Your task to perform on an android device: What's the weather today? Image 0: 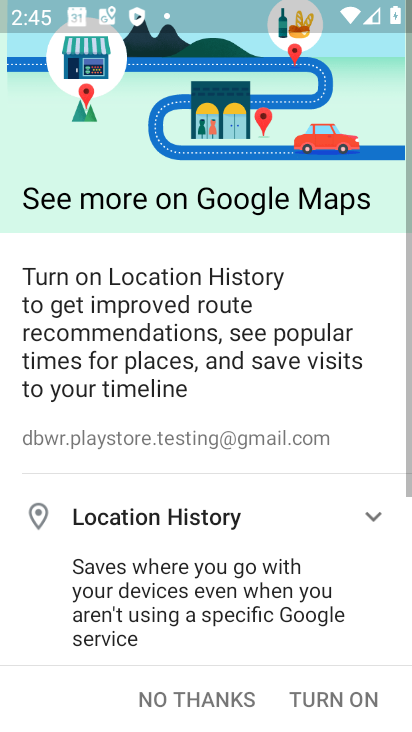
Step 0: press home button
Your task to perform on an android device: What's the weather today? Image 1: 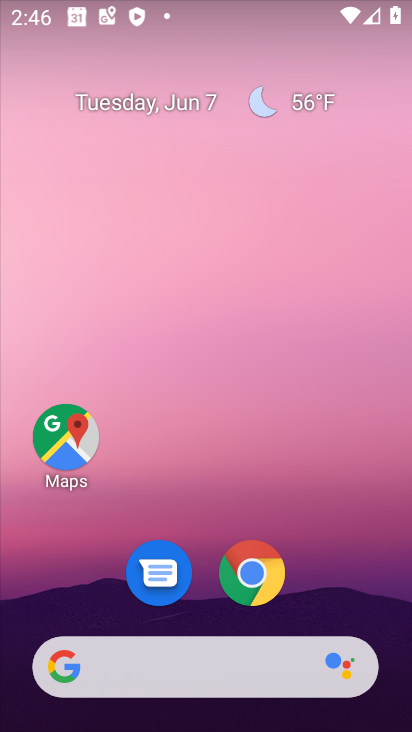
Step 1: click (192, 665)
Your task to perform on an android device: What's the weather today? Image 2: 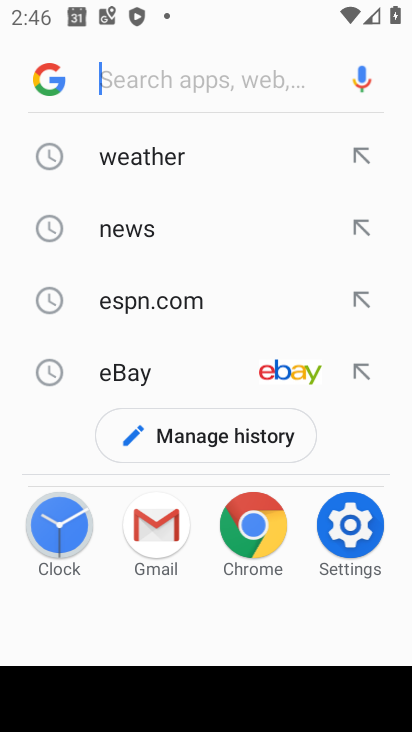
Step 2: type "what's the weather today"
Your task to perform on an android device: What's the weather today? Image 3: 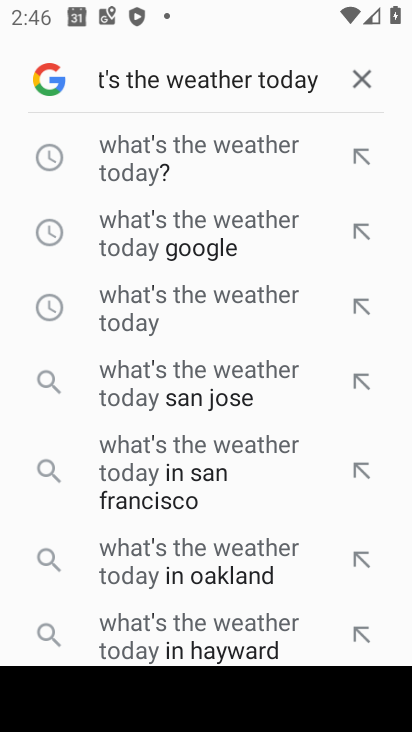
Step 3: click (185, 164)
Your task to perform on an android device: What's the weather today? Image 4: 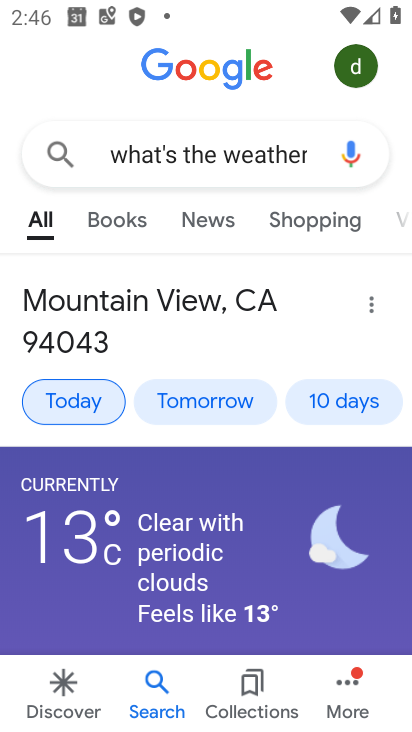
Step 4: task complete